Your task to perform on an android device: turn off notifications in google photos Image 0: 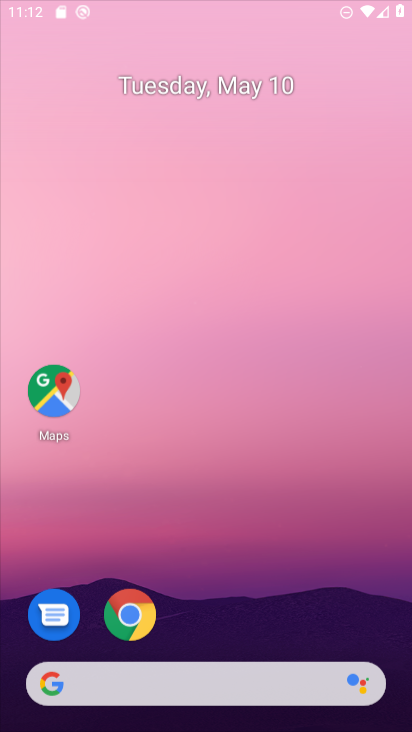
Step 0: click (202, 241)
Your task to perform on an android device: turn off notifications in google photos Image 1: 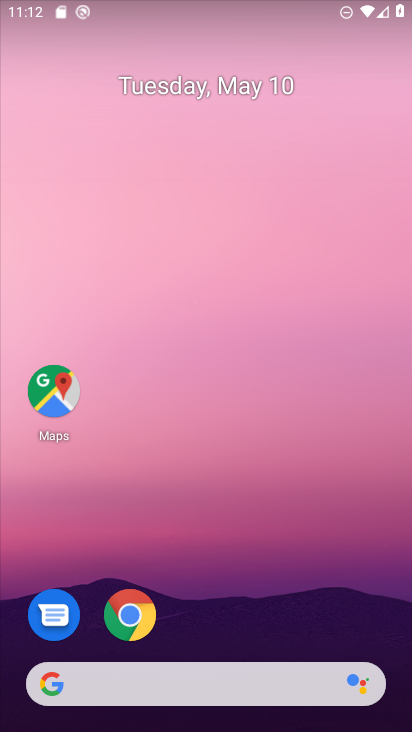
Step 1: drag from (199, 633) to (236, 158)
Your task to perform on an android device: turn off notifications in google photos Image 2: 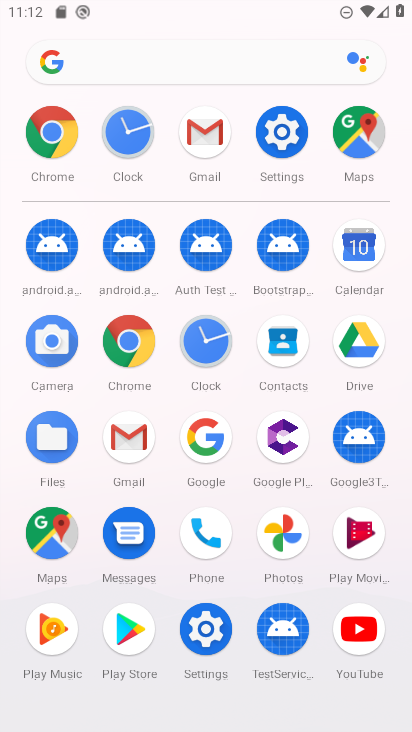
Step 2: click (279, 526)
Your task to perform on an android device: turn off notifications in google photos Image 3: 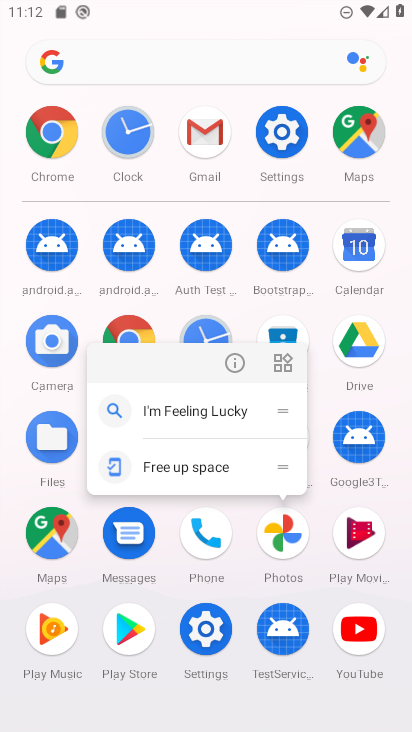
Step 3: click (233, 363)
Your task to perform on an android device: turn off notifications in google photos Image 4: 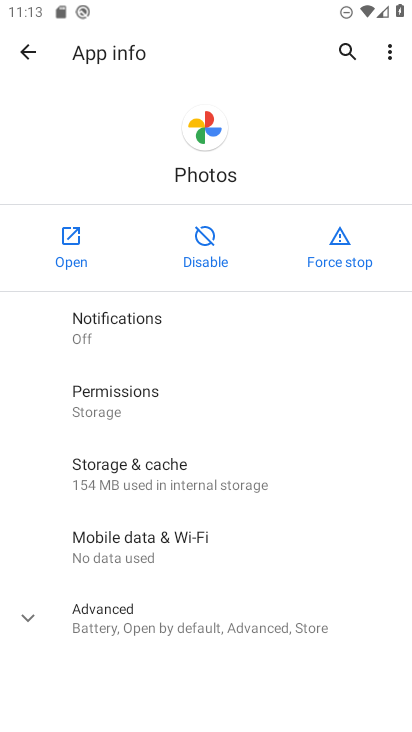
Step 4: click (50, 238)
Your task to perform on an android device: turn off notifications in google photos Image 5: 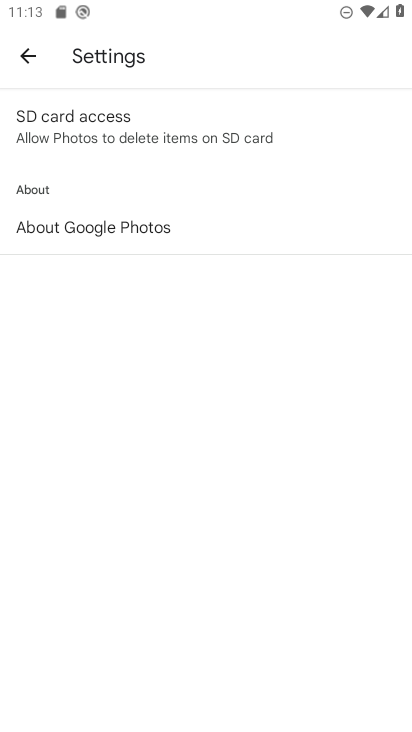
Step 5: drag from (195, 523) to (214, 300)
Your task to perform on an android device: turn off notifications in google photos Image 6: 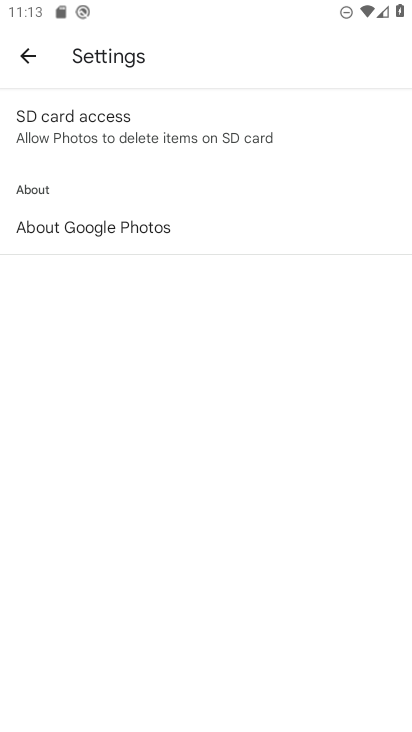
Step 6: click (32, 61)
Your task to perform on an android device: turn off notifications in google photos Image 7: 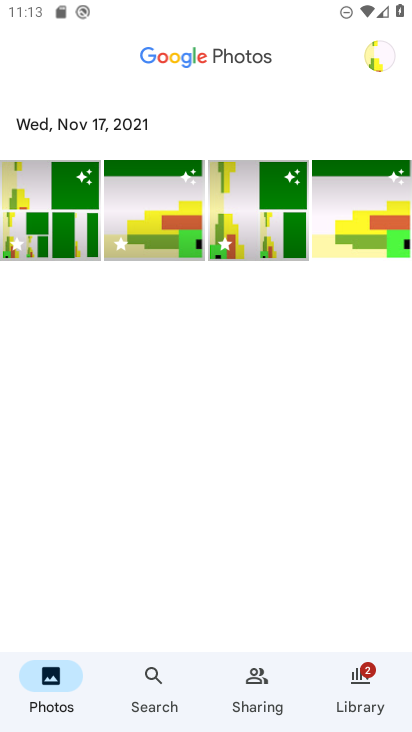
Step 7: click (371, 59)
Your task to perform on an android device: turn off notifications in google photos Image 8: 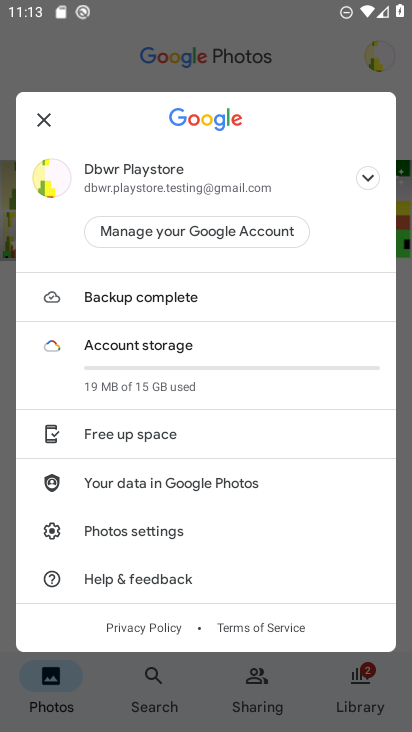
Step 8: click (123, 539)
Your task to perform on an android device: turn off notifications in google photos Image 9: 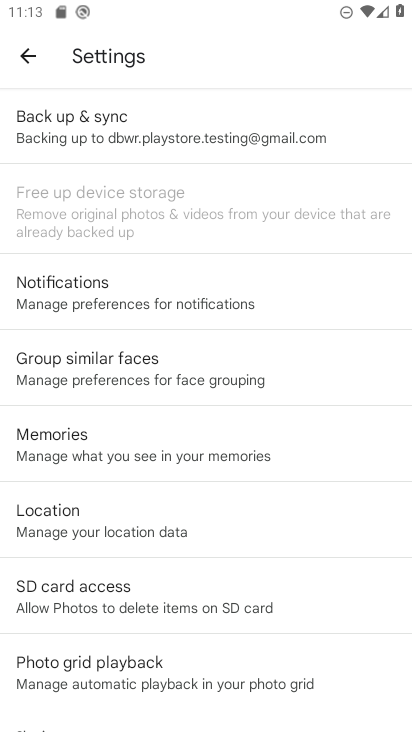
Step 9: drag from (189, 560) to (264, 270)
Your task to perform on an android device: turn off notifications in google photos Image 10: 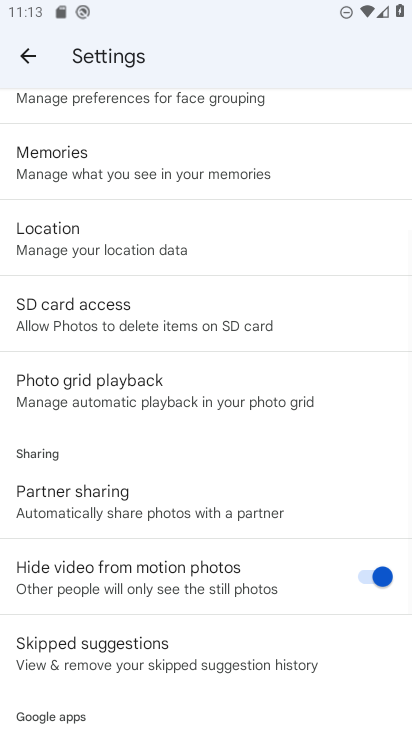
Step 10: drag from (258, 270) to (273, 576)
Your task to perform on an android device: turn off notifications in google photos Image 11: 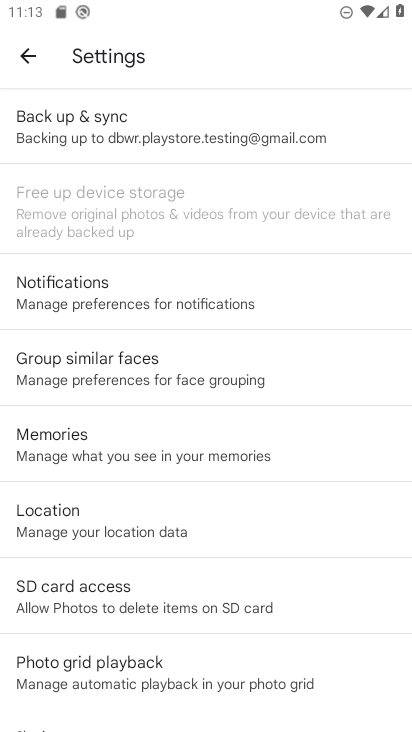
Step 11: click (105, 302)
Your task to perform on an android device: turn off notifications in google photos Image 12: 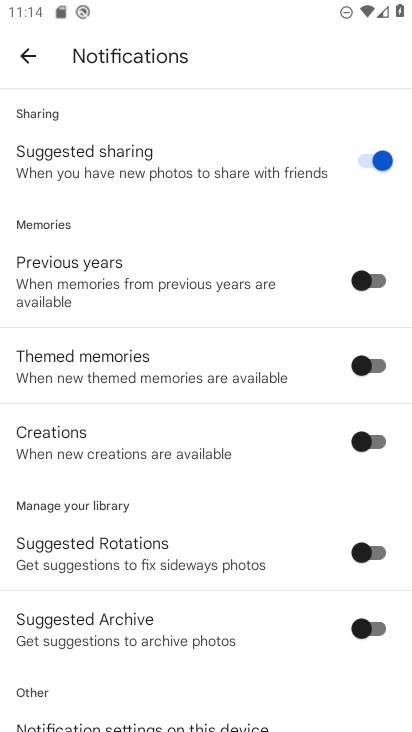
Step 12: drag from (225, 663) to (241, 332)
Your task to perform on an android device: turn off notifications in google photos Image 13: 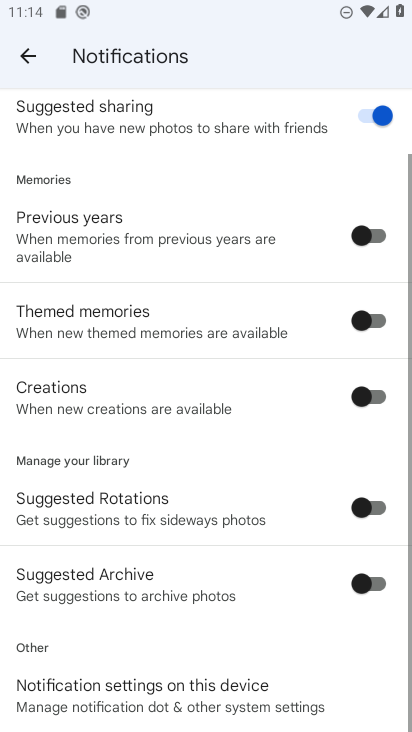
Step 13: drag from (196, 306) to (283, 691)
Your task to perform on an android device: turn off notifications in google photos Image 14: 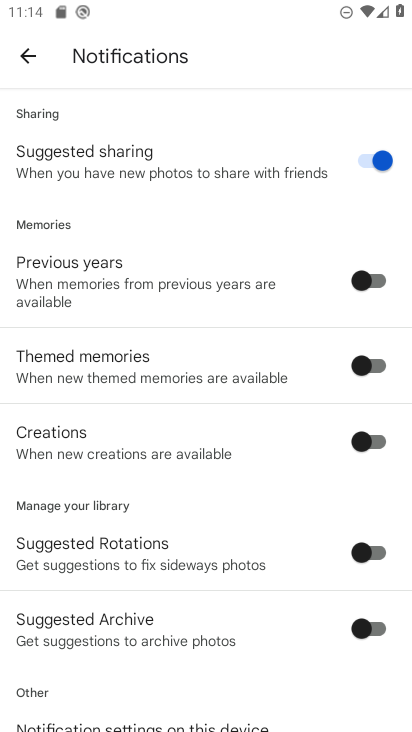
Step 14: drag from (168, 553) to (250, 231)
Your task to perform on an android device: turn off notifications in google photos Image 15: 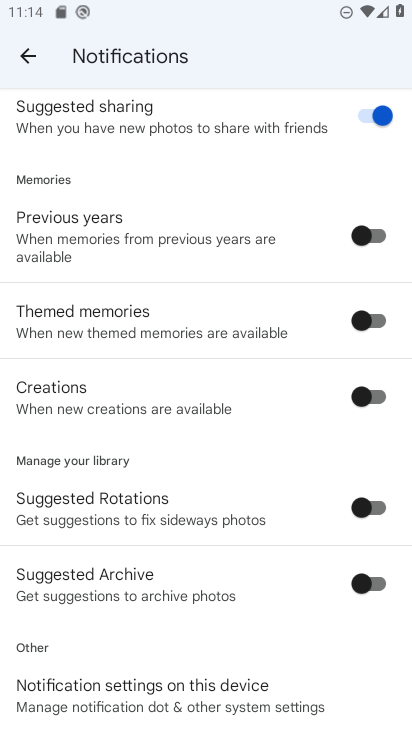
Step 15: click (206, 695)
Your task to perform on an android device: turn off notifications in google photos Image 16: 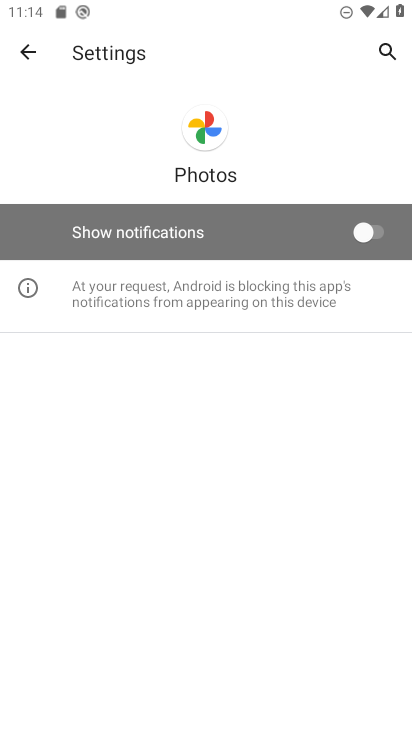
Step 16: task complete